Your task to perform on an android device: set the timer Image 0: 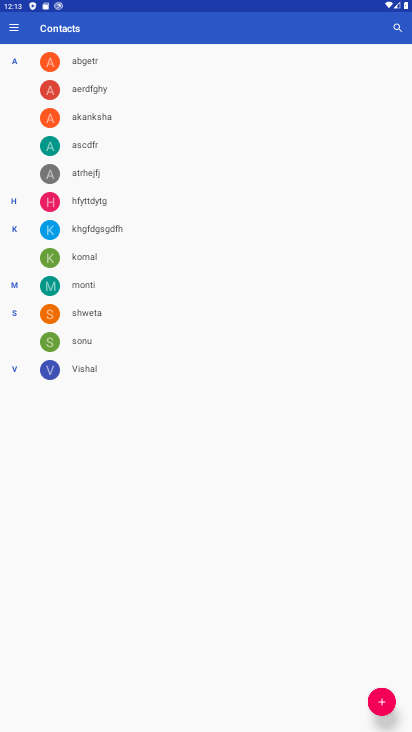
Step 0: press home button
Your task to perform on an android device: set the timer Image 1: 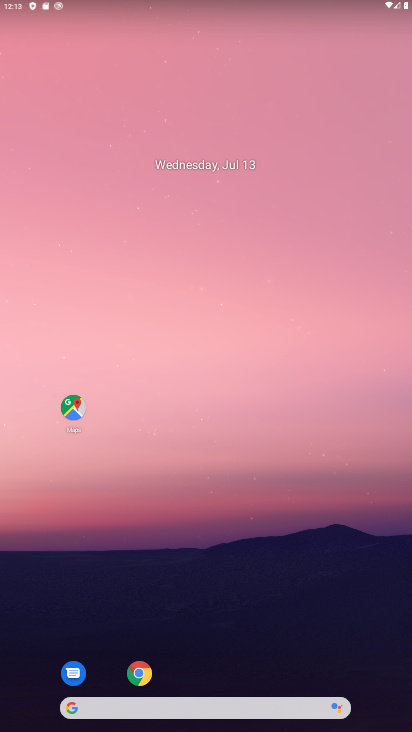
Step 1: drag from (248, 663) to (240, 269)
Your task to perform on an android device: set the timer Image 2: 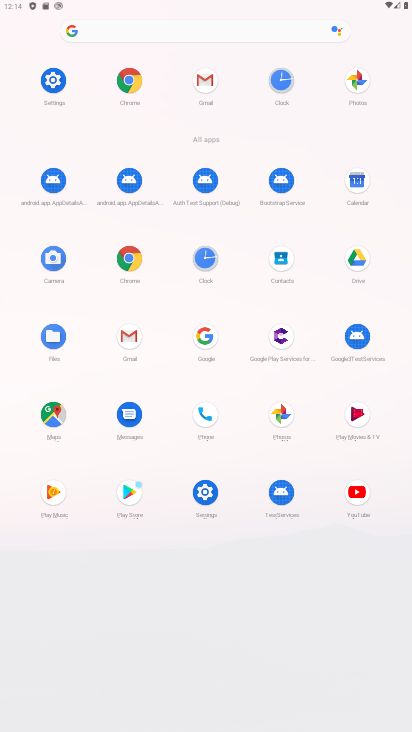
Step 2: click (268, 91)
Your task to perform on an android device: set the timer Image 3: 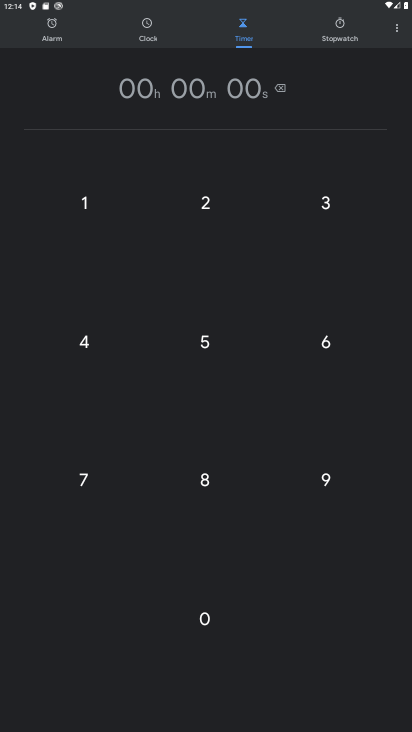
Step 3: task complete